Your task to perform on an android device: clear all cookies in the chrome app Image 0: 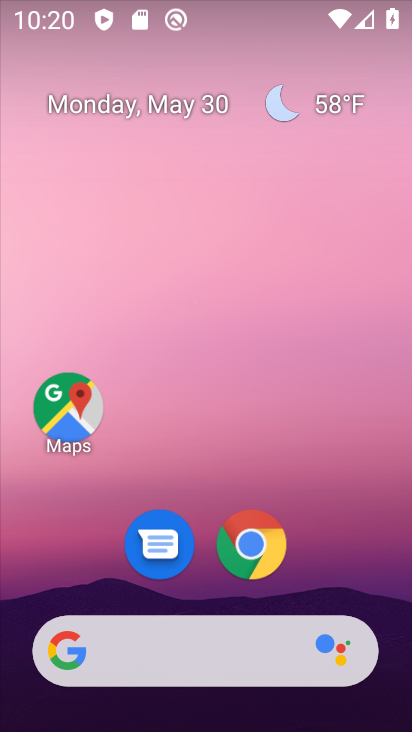
Step 0: click (269, 564)
Your task to perform on an android device: clear all cookies in the chrome app Image 1: 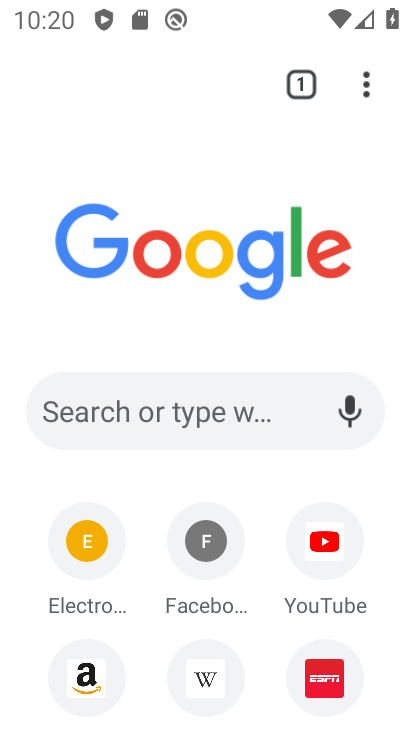
Step 1: click (366, 93)
Your task to perform on an android device: clear all cookies in the chrome app Image 2: 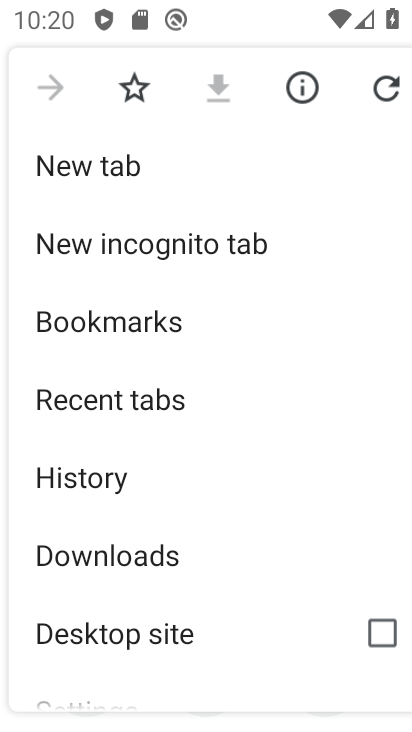
Step 2: drag from (171, 618) to (179, 169)
Your task to perform on an android device: clear all cookies in the chrome app Image 3: 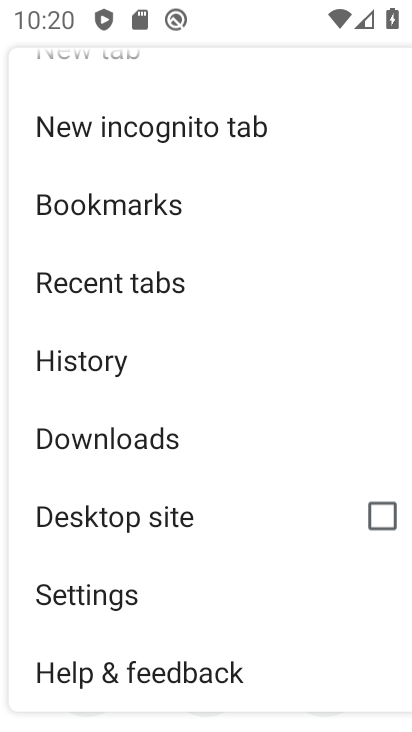
Step 3: click (117, 620)
Your task to perform on an android device: clear all cookies in the chrome app Image 4: 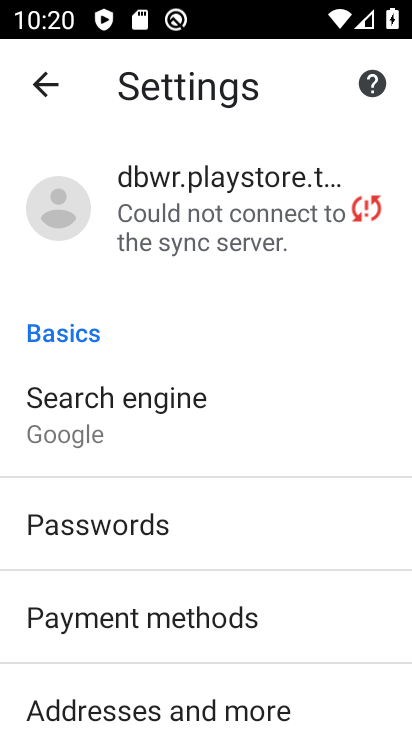
Step 4: task complete